Your task to perform on an android device: Go to sound settings Image 0: 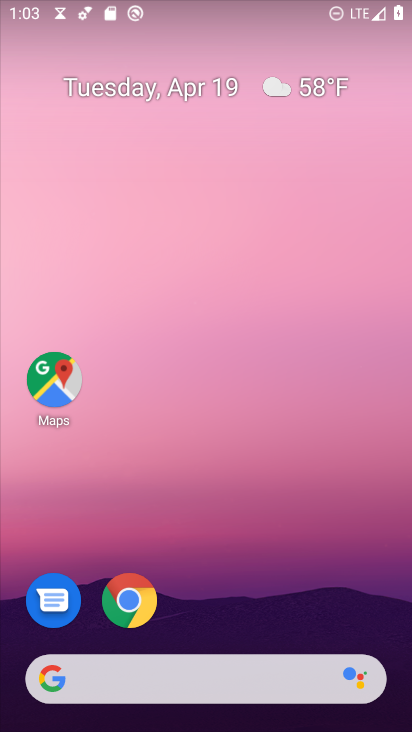
Step 0: drag from (137, 579) to (135, 222)
Your task to perform on an android device: Go to sound settings Image 1: 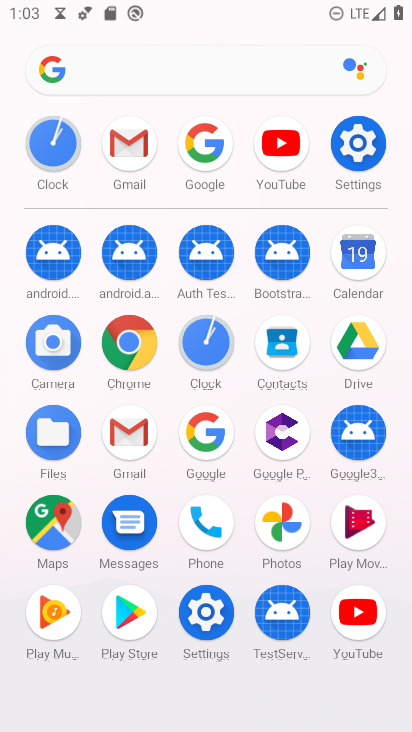
Step 1: click (193, 614)
Your task to perform on an android device: Go to sound settings Image 2: 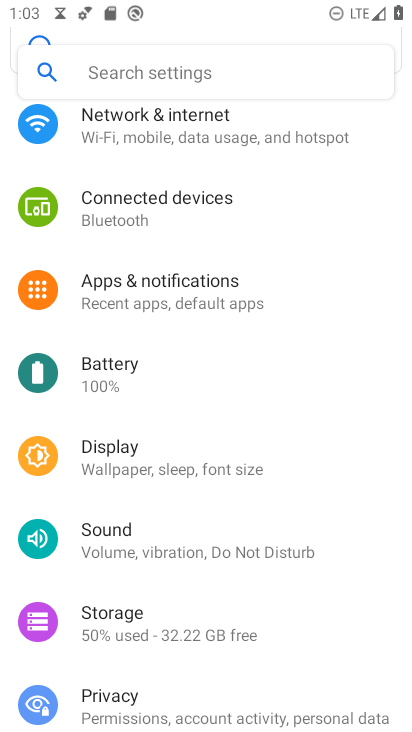
Step 2: click (159, 549)
Your task to perform on an android device: Go to sound settings Image 3: 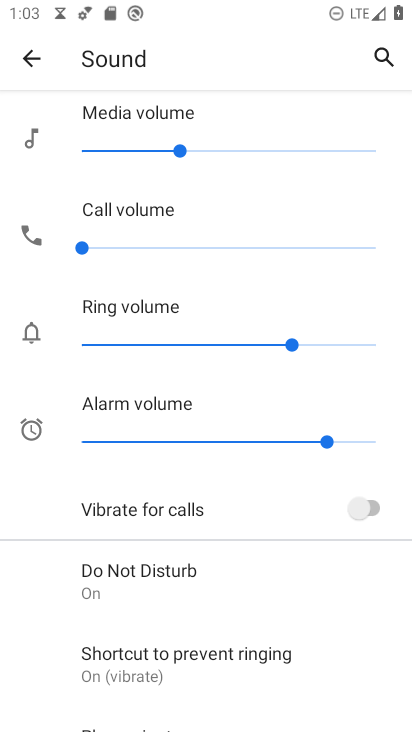
Step 3: task complete